Your task to perform on an android device: install app "Airtel Thanks" Image 0: 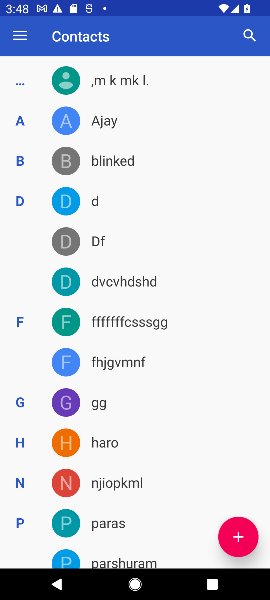
Step 0: press home button
Your task to perform on an android device: install app "Airtel Thanks" Image 1: 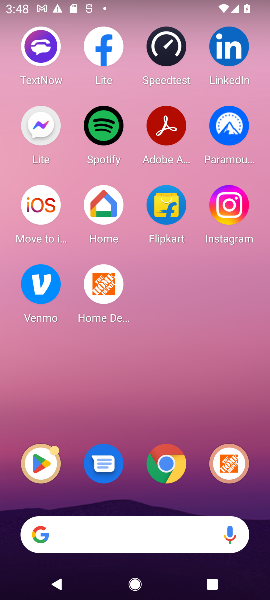
Step 1: drag from (101, 529) to (109, 81)
Your task to perform on an android device: install app "Airtel Thanks" Image 2: 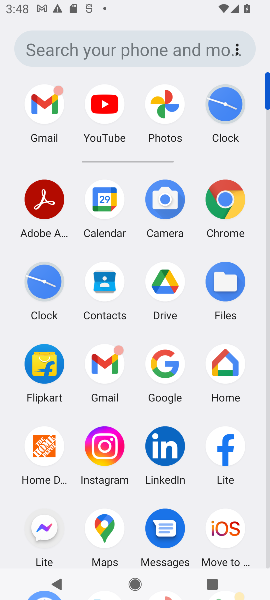
Step 2: drag from (124, 427) to (119, 182)
Your task to perform on an android device: install app "Airtel Thanks" Image 3: 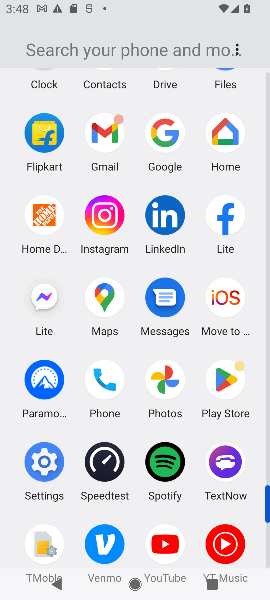
Step 3: click (228, 382)
Your task to perform on an android device: install app "Airtel Thanks" Image 4: 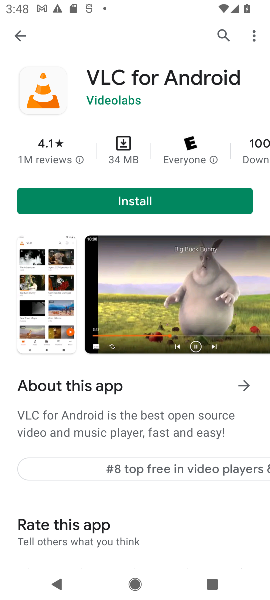
Step 4: click (221, 32)
Your task to perform on an android device: install app "Airtel Thanks" Image 5: 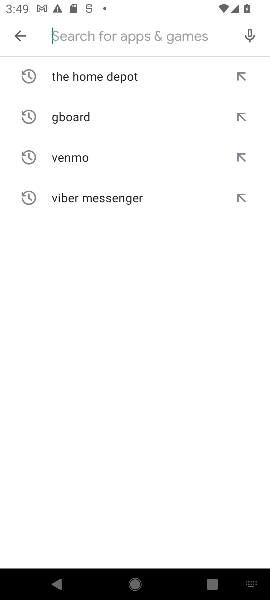
Step 5: type "Airtel Thanks"
Your task to perform on an android device: install app "Airtel Thanks" Image 6: 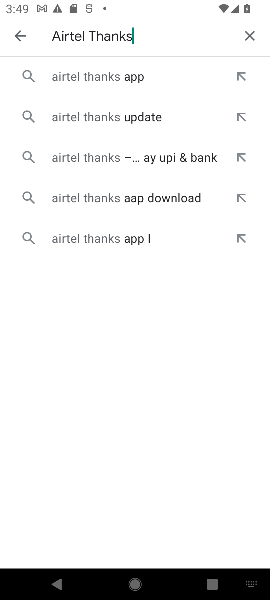
Step 6: click (117, 75)
Your task to perform on an android device: install app "Airtel Thanks" Image 7: 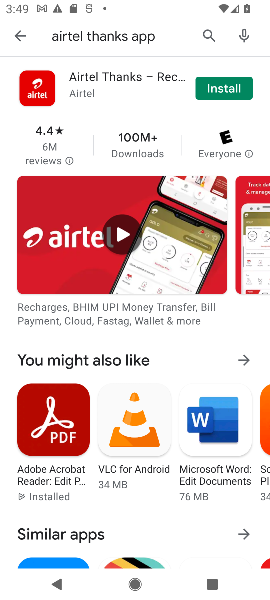
Step 7: click (227, 90)
Your task to perform on an android device: install app "Airtel Thanks" Image 8: 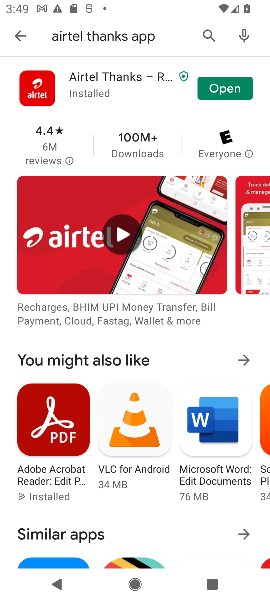
Step 8: task complete